Your task to perform on an android device: toggle data saver in the chrome app Image 0: 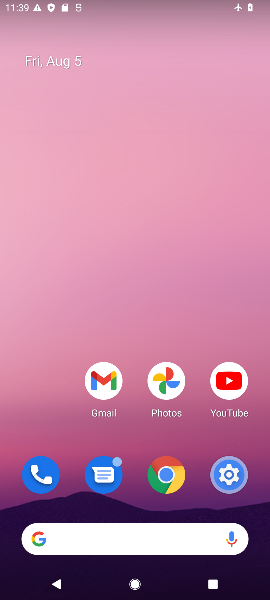
Step 0: click (163, 470)
Your task to perform on an android device: toggle data saver in the chrome app Image 1: 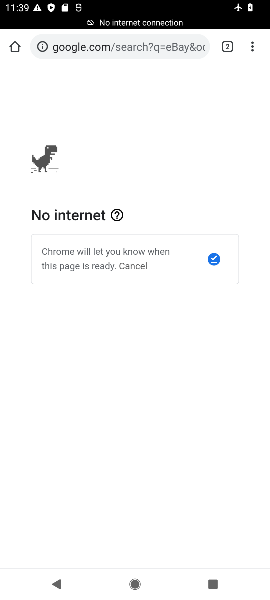
Step 1: click (249, 40)
Your task to perform on an android device: toggle data saver in the chrome app Image 2: 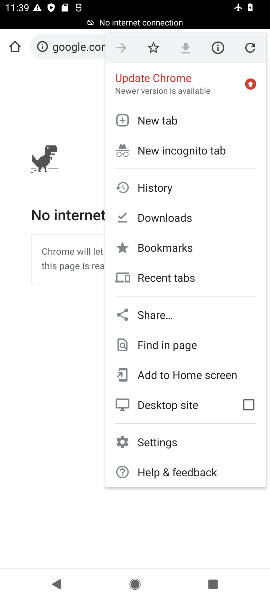
Step 2: click (154, 433)
Your task to perform on an android device: toggle data saver in the chrome app Image 3: 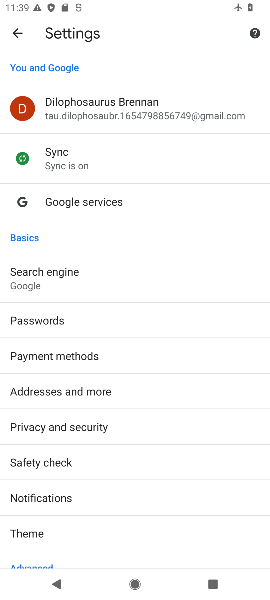
Step 3: drag from (74, 480) to (96, 243)
Your task to perform on an android device: toggle data saver in the chrome app Image 4: 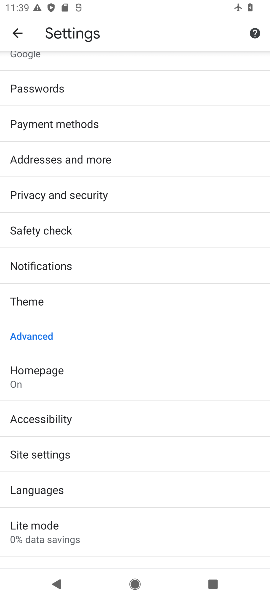
Step 4: click (36, 535)
Your task to perform on an android device: toggle data saver in the chrome app Image 5: 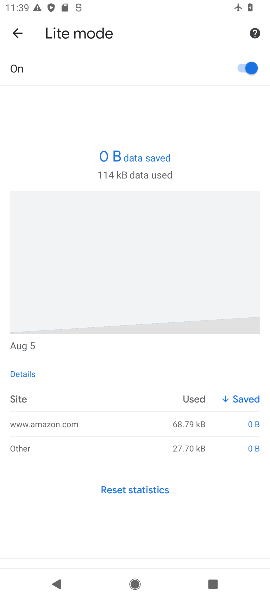
Step 5: click (227, 68)
Your task to perform on an android device: toggle data saver in the chrome app Image 6: 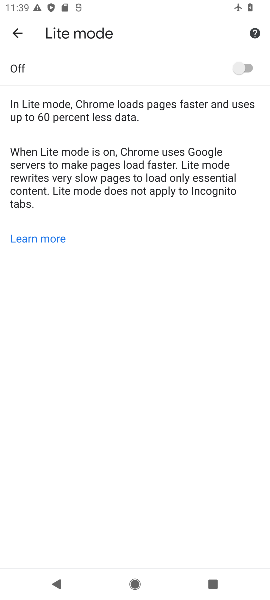
Step 6: task complete